Your task to perform on an android device: see tabs open on other devices in the chrome app Image 0: 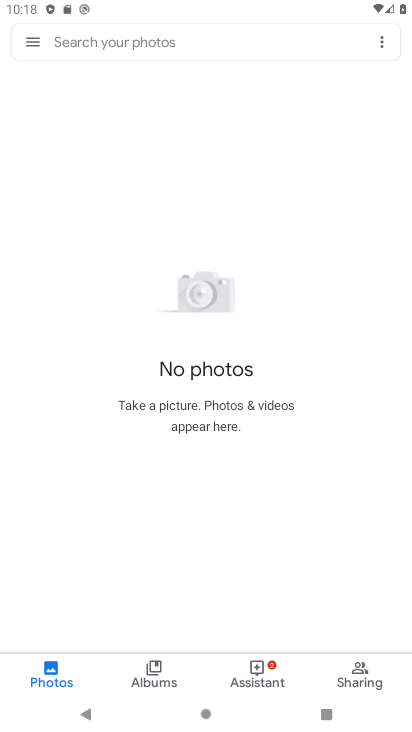
Step 0: press home button
Your task to perform on an android device: see tabs open on other devices in the chrome app Image 1: 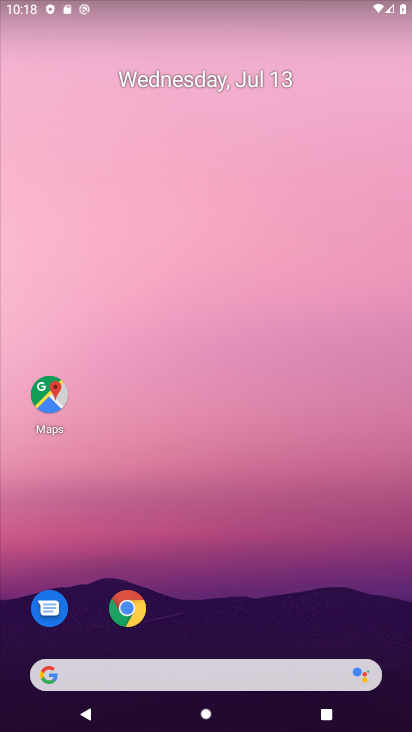
Step 1: click (119, 610)
Your task to perform on an android device: see tabs open on other devices in the chrome app Image 2: 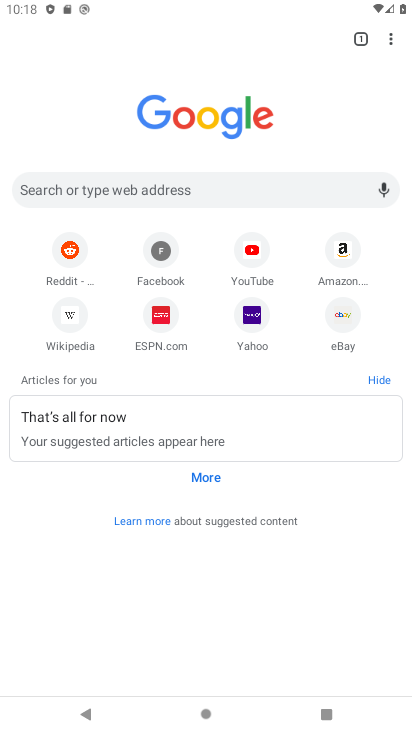
Step 2: task complete